Your task to perform on an android device: Play the last video I watched on Youtube Image 0: 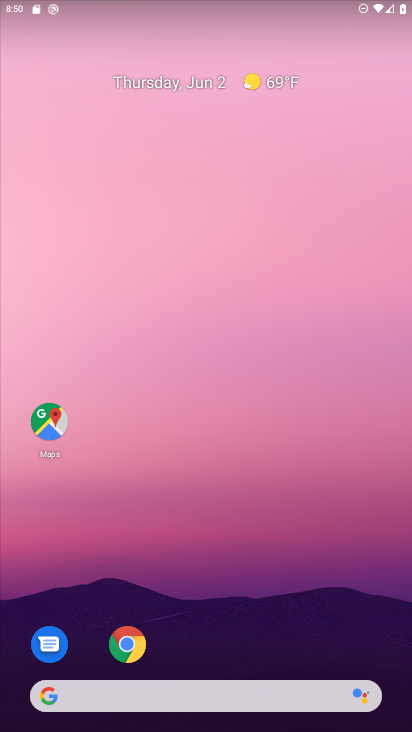
Step 0: drag from (197, 512) to (134, 14)
Your task to perform on an android device: Play the last video I watched on Youtube Image 1: 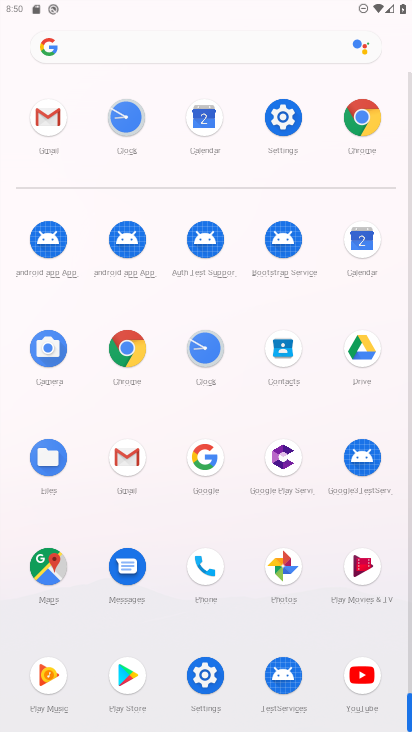
Step 1: drag from (25, 655) to (4, 292)
Your task to perform on an android device: Play the last video I watched on Youtube Image 2: 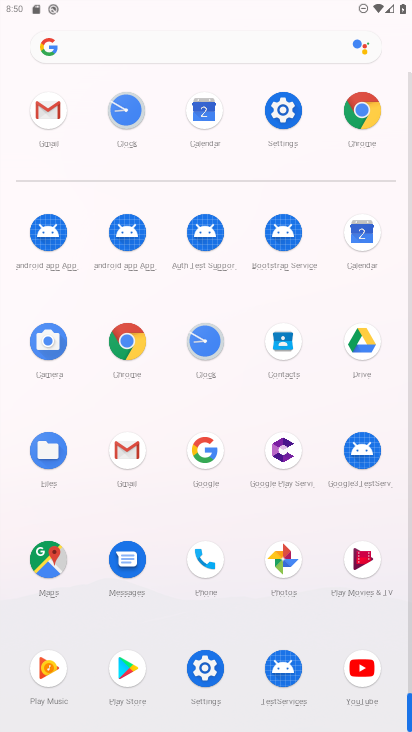
Step 2: click (364, 666)
Your task to perform on an android device: Play the last video I watched on Youtube Image 3: 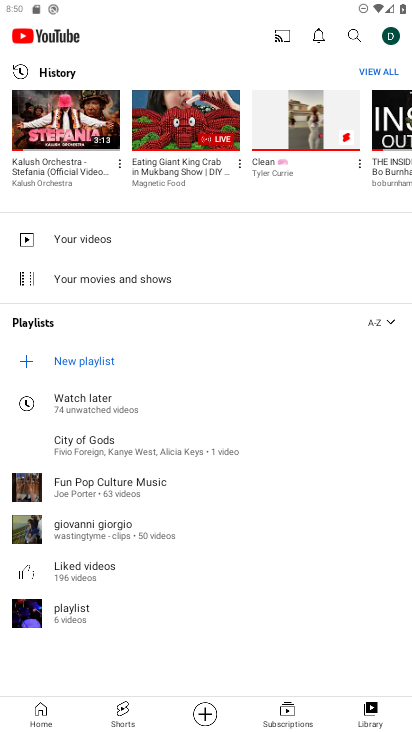
Step 3: click (52, 716)
Your task to perform on an android device: Play the last video I watched on Youtube Image 4: 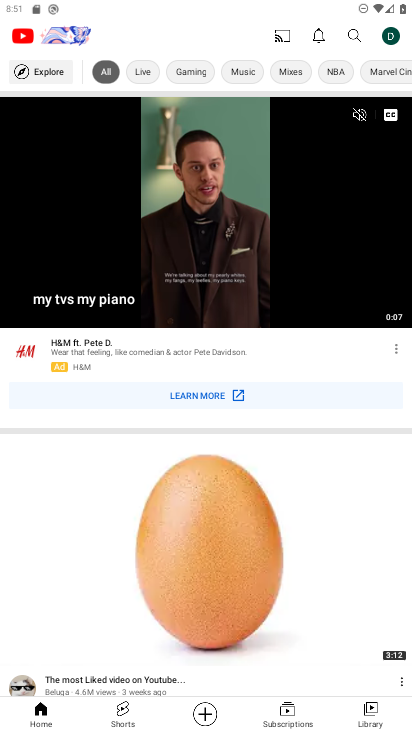
Step 4: click (367, 723)
Your task to perform on an android device: Play the last video I watched on Youtube Image 5: 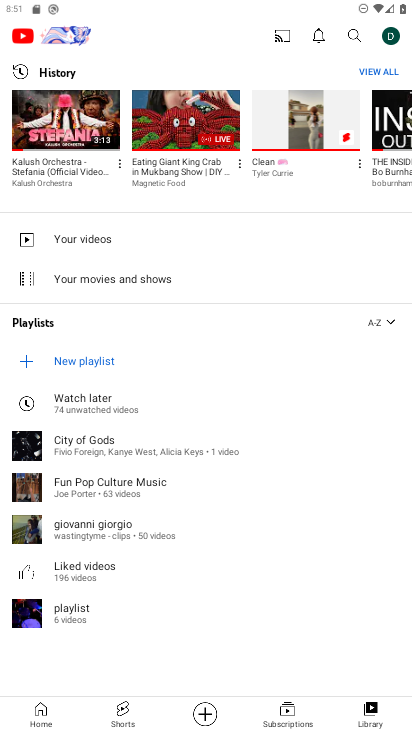
Step 5: click (62, 126)
Your task to perform on an android device: Play the last video I watched on Youtube Image 6: 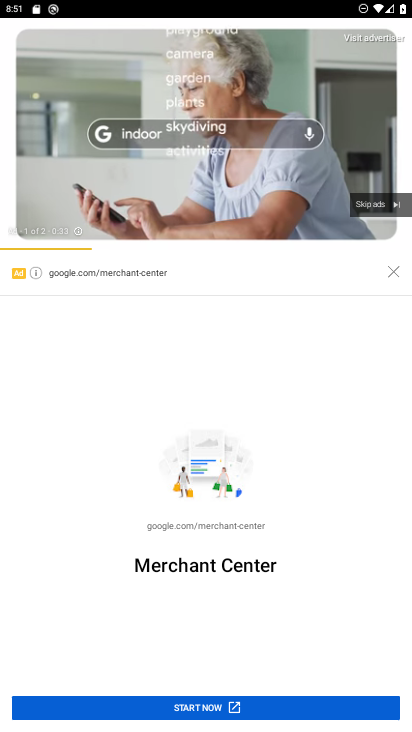
Step 6: click (379, 200)
Your task to perform on an android device: Play the last video I watched on Youtube Image 7: 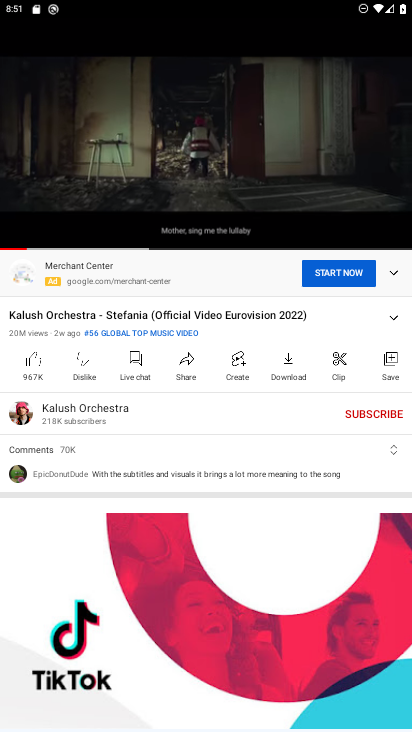
Step 7: task complete